Your task to perform on an android device: Is it going to rain this weekend? Image 0: 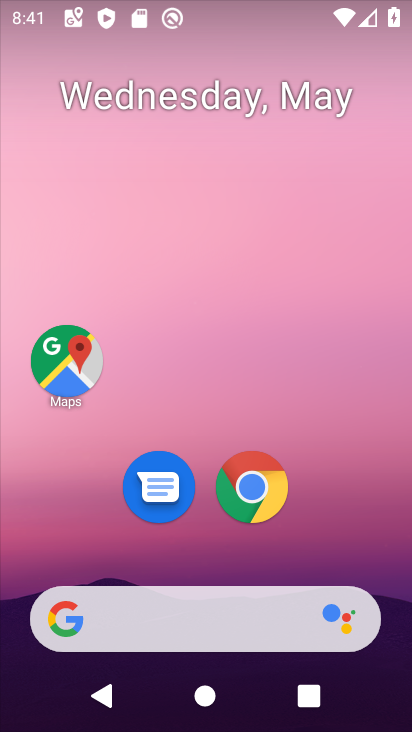
Step 0: click (201, 611)
Your task to perform on an android device: Is it going to rain this weekend? Image 1: 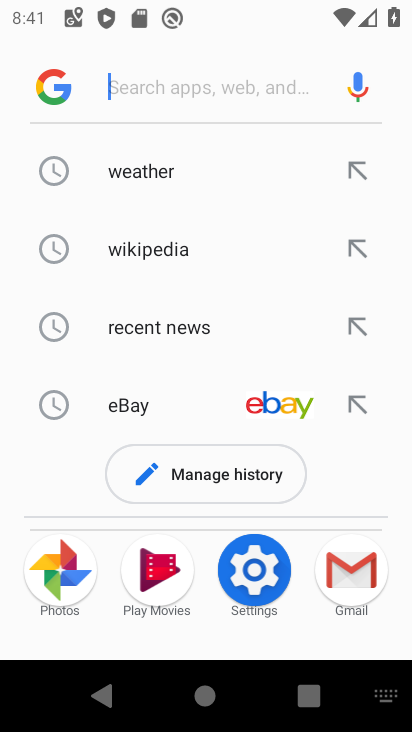
Step 1: click (150, 171)
Your task to perform on an android device: Is it going to rain this weekend? Image 2: 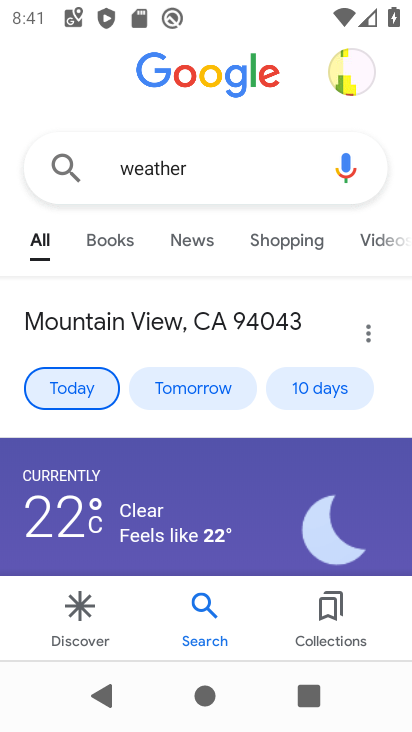
Step 2: click (299, 389)
Your task to perform on an android device: Is it going to rain this weekend? Image 3: 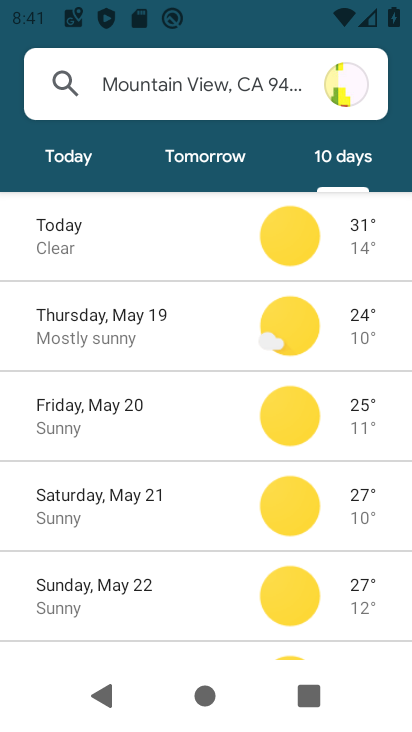
Step 3: task complete